Your task to perform on an android device: turn on airplane mode Image 0: 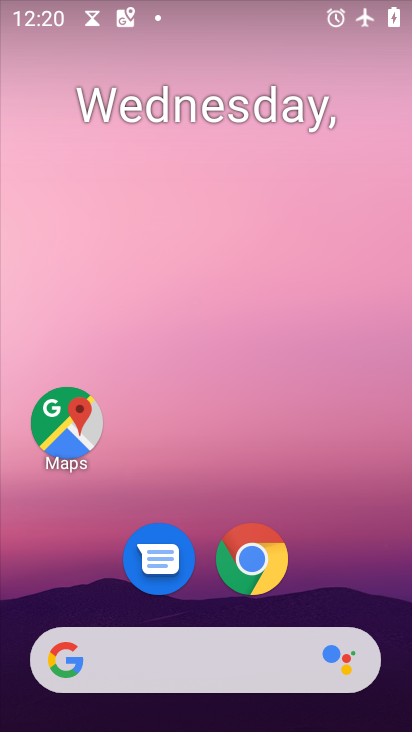
Step 0: drag from (342, 535) to (311, 10)
Your task to perform on an android device: turn on airplane mode Image 1: 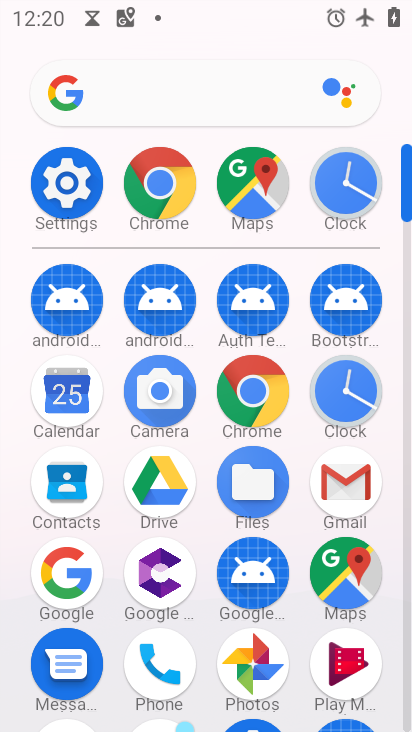
Step 1: click (69, 191)
Your task to perform on an android device: turn on airplane mode Image 2: 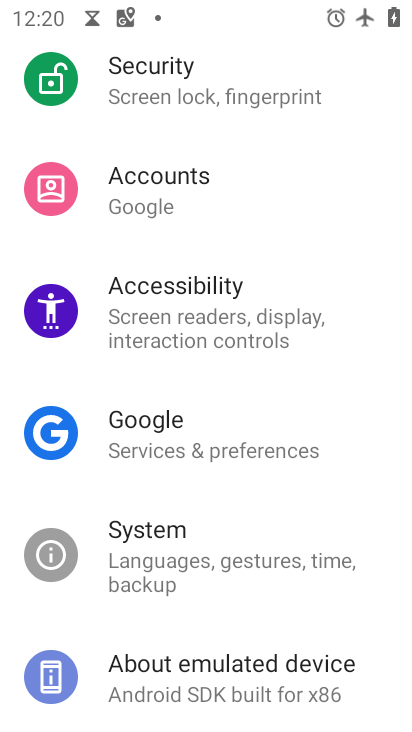
Step 2: drag from (159, 117) to (135, 680)
Your task to perform on an android device: turn on airplane mode Image 3: 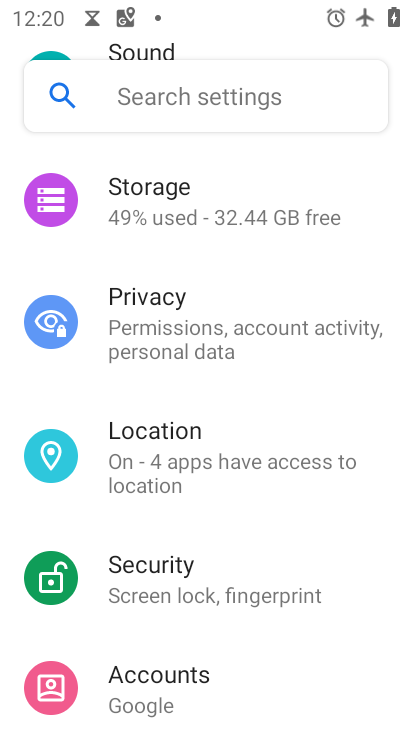
Step 3: drag from (212, 210) to (274, 638)
Your task to perform on an android device: turn on airplane mode Image 4: 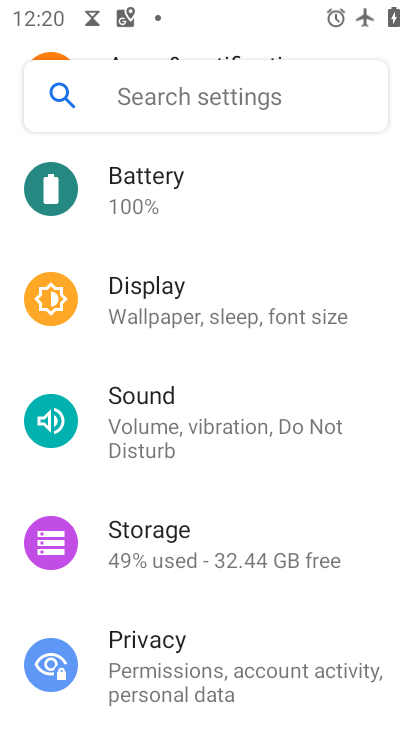
Step 4: drag from (167, 235) to (200, 727)
Your task to perform on an android device: turn on airplane mode Image 5: 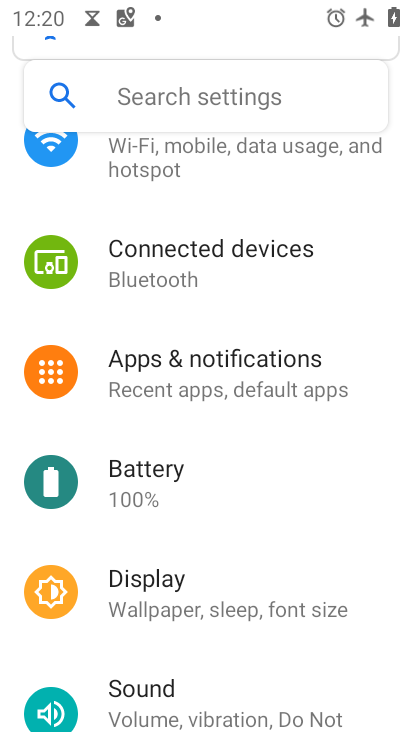
Step 5: drag from (158, 162) to (244, 715)
Your task to perform on an android device: turn on airplane mode Image 6: 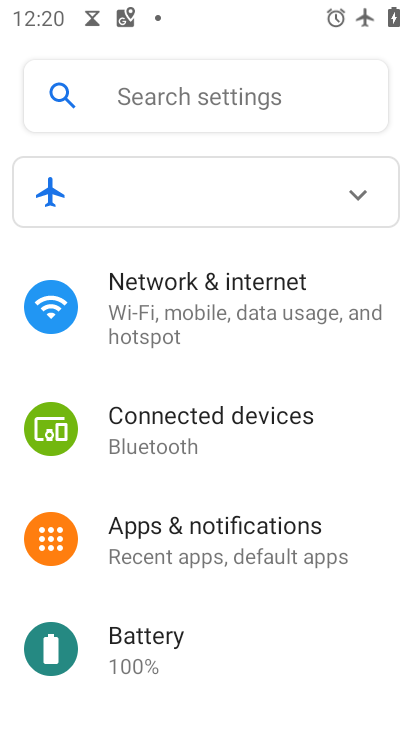
Step 6: click (171, 297)
Your task to perform on an android device: turn on airplane mode Image 7: 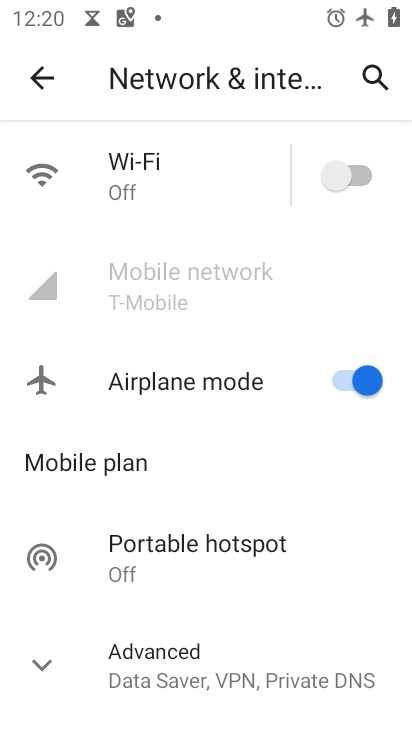
Step 7: task complete